Your task to perform on an android device: Open Chrome and go to settings Image 0: 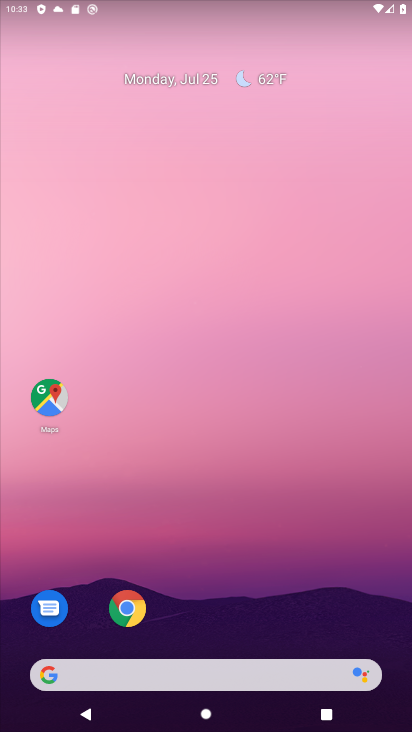
Step 0: drag from (210, 624) to (259, 199)
Your task to perform on an android device: Open Chrome and go to settings Image 1: 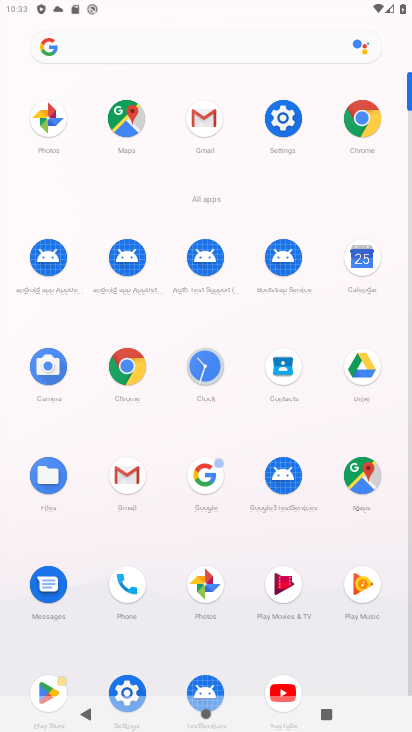
Step 1: click (130, 380)
Your task to perform on an android device: Open Chrome and go to settings Image 2: 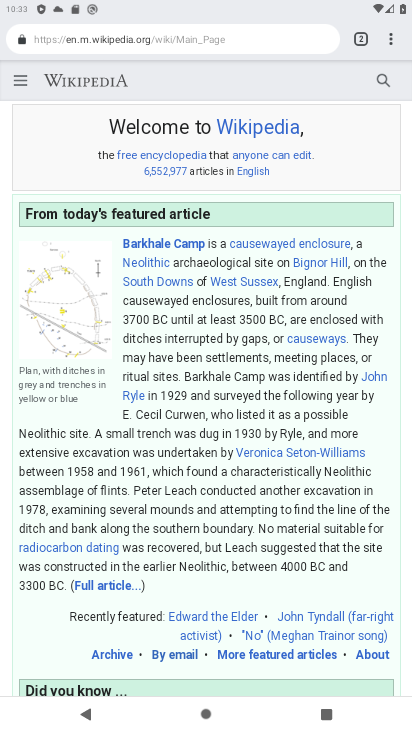
Step 2: click (388, 40)
Your task to perform on an android device: Open Chrome and go to settings Image 3: 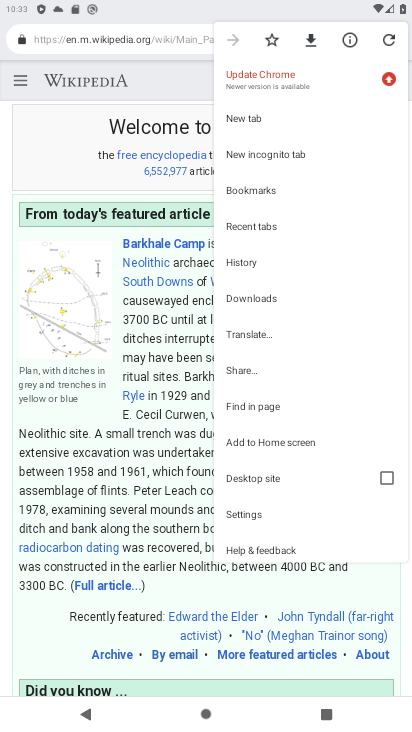
Step 3: click (247, 513)
Your task to perform on an android device: Open Chrome and go to settings Image 4: 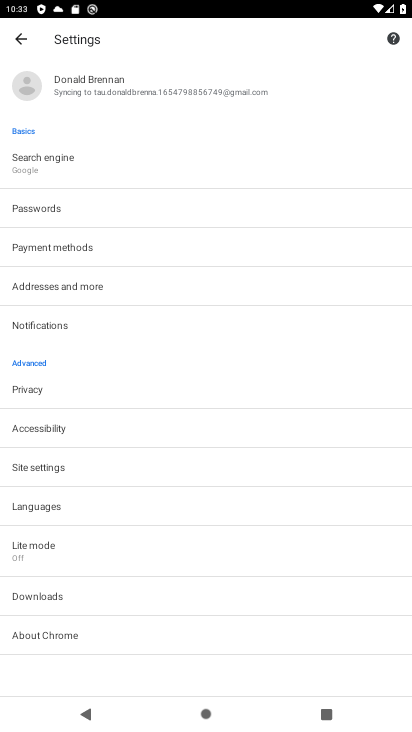
Step 4: task complete